Your task to perform on an android device: Open Chrome and go to settings Image 0: 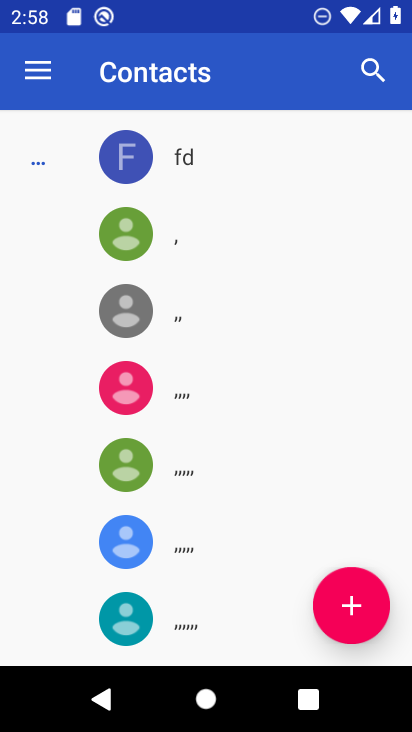
Step 0: press home button
Your task to perform on an android device: Open Chrome and go to settings Image 1: 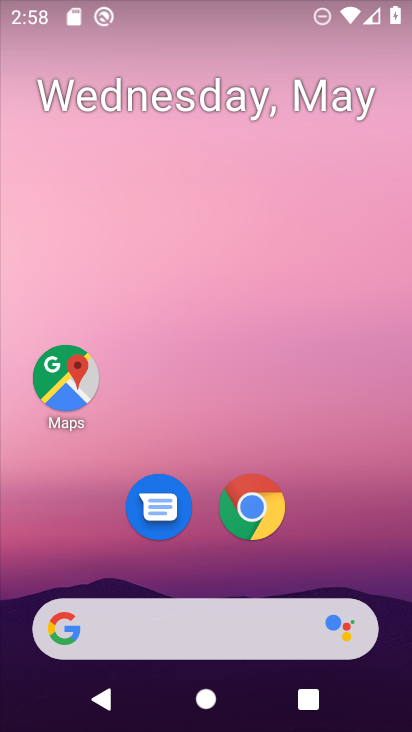
Step 1: click (255, 504)
Your task to perform on an android device: Open Chrome and go to settings Image 2: 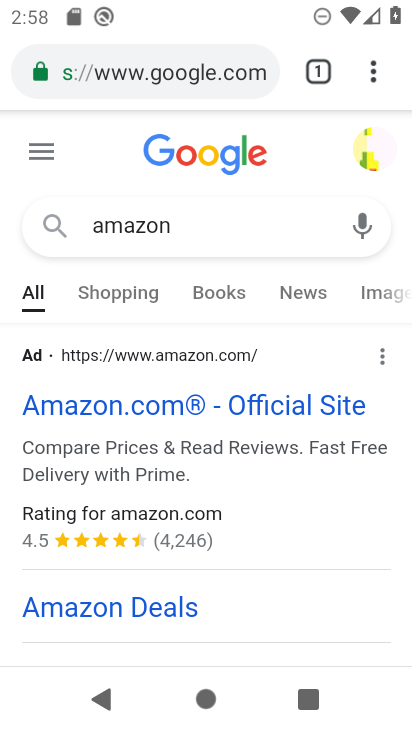
Step 2: click (377, 75)
Your task to perform on an android device: Open Chrome and go to settings Image 3: 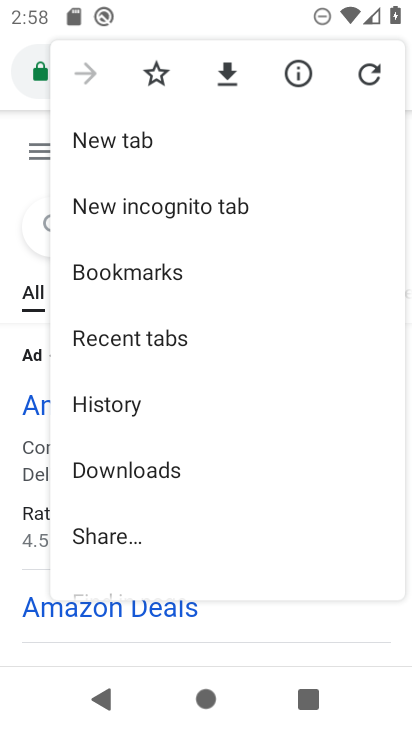
Step 3: drag from (188, 492) to (220, 245)
Your task to perform on an android device: Open Chrome and go to settings Image 4: 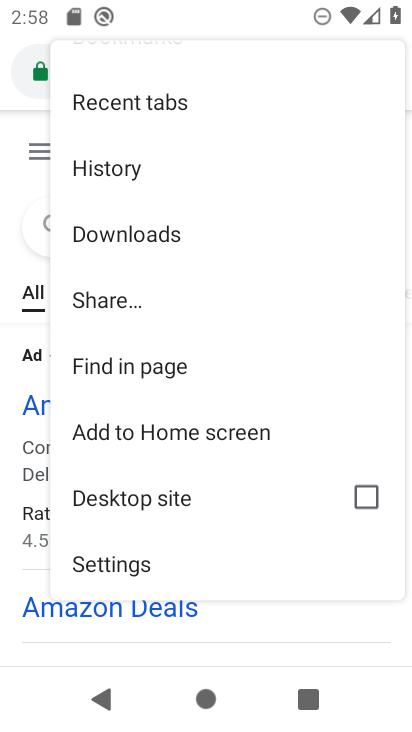
Step 4: drag from (201, 507) to (228, 209)
Your task to perform on an android device: Open Chrome and go to settings Image 5: 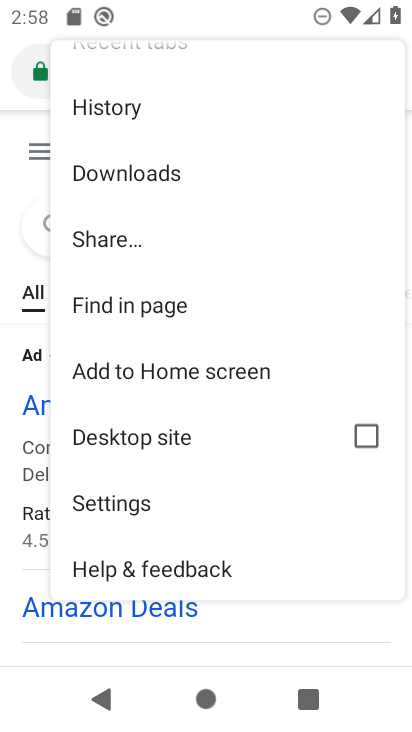
Step 5: click (114, 510)
Your task to perform on an android device: Open Chrome and go to settings Image 6: 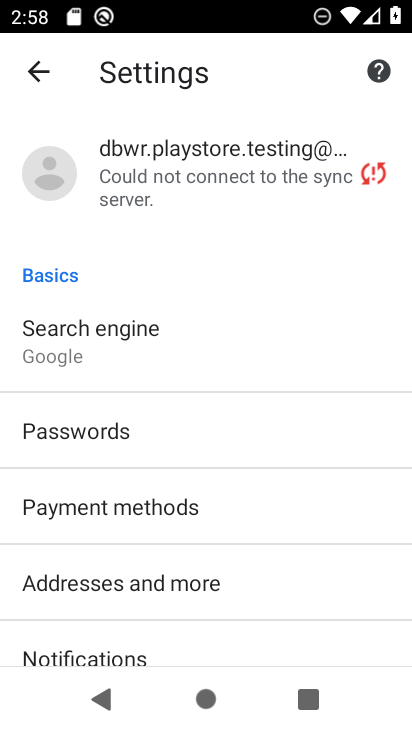
Step 6: task complete